Your task to perform on an android device: turn off priority inbox in the gmail app Image 0: 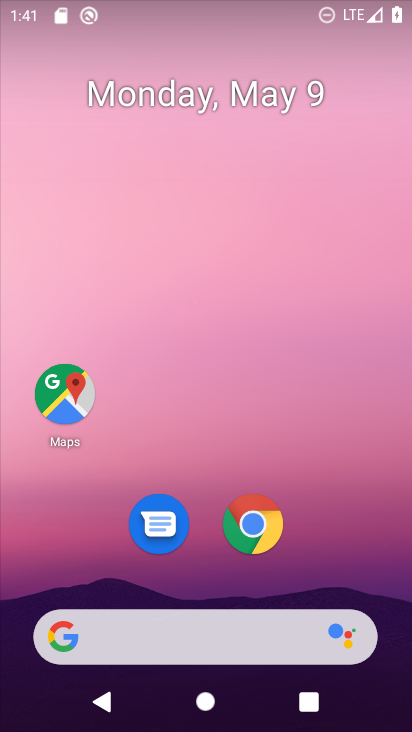
Step 0: drag from (69, 523) to (48, 60)
Your task to perform on an android device: turn off priority inbox in the gmail app Image 1: 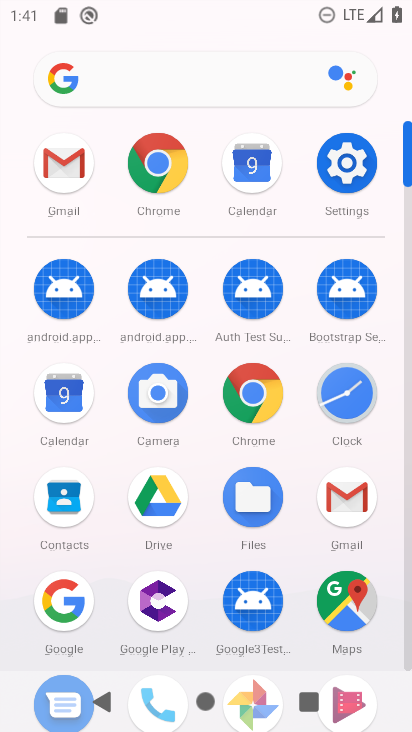
Step 1: click (66, 152)
Your task to perform on an android device: turn off priority inbox in the gmail app Image 2: 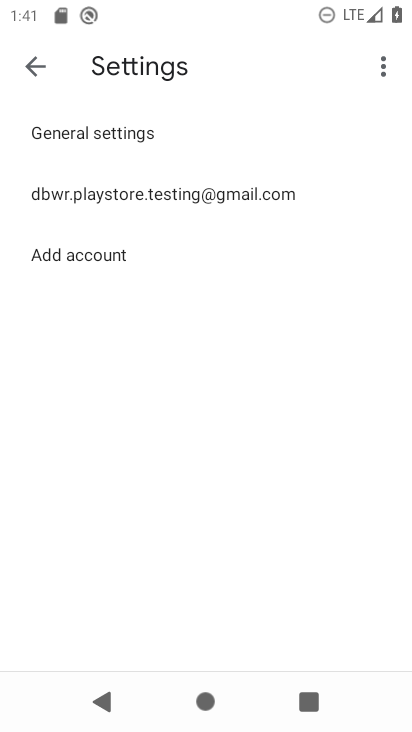
Step 2: click (111, 185)
Your task to perform on an android device: turn off priority inbox in the gmail app Image 3: 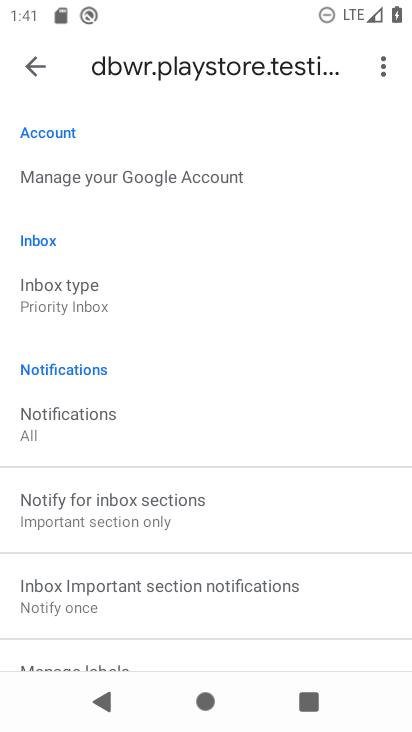
Step 3: click (95, 294)
Your task to perform on an android device: turn off priority inbox in the gmail app Image 4: 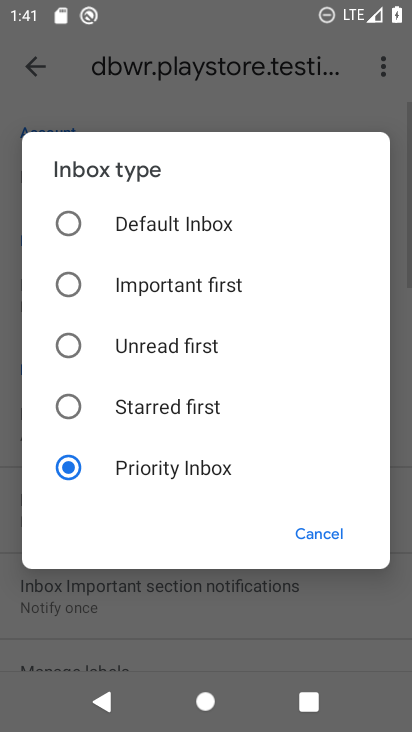
Step 4: click (73, 217)
Your task to perform on an android device: turn off priority inbox in the gmail app Image 5: 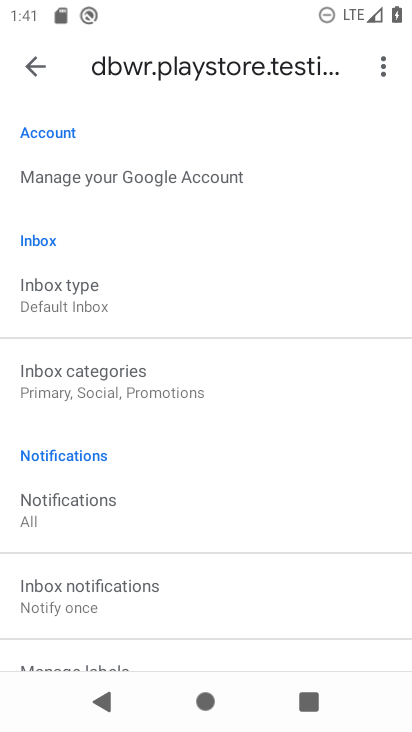
Step 5: task complete